Your task to perform on an android device: Show the shopping cart on costco. Add razer naga to the cart on costco Image 0: 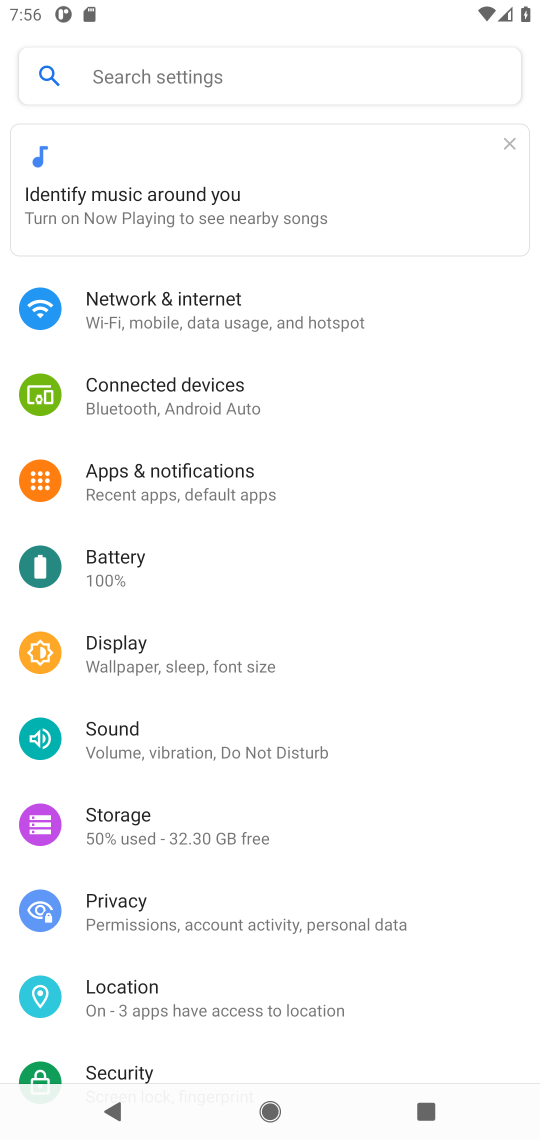
Step 0: press home button
Your task to perform on an android device: Show the shopping cart on costco. Add razer naga to the cart on costco Image 1: 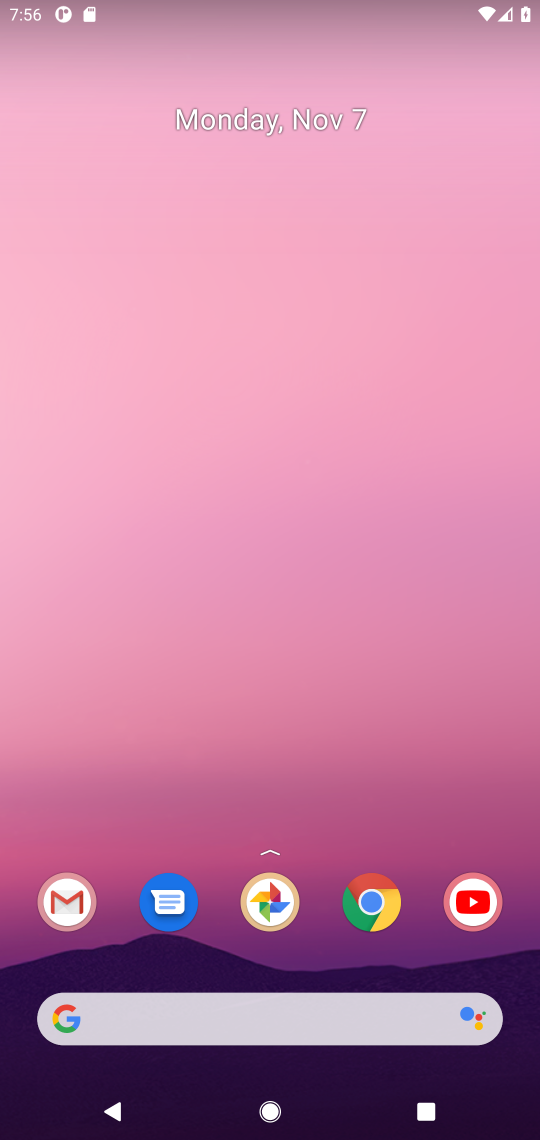
Step 1: click (370, 911)
Your task to perform on an android device: Show the shopping cart on costco. Add razer naga to the cart on costco Image 2: 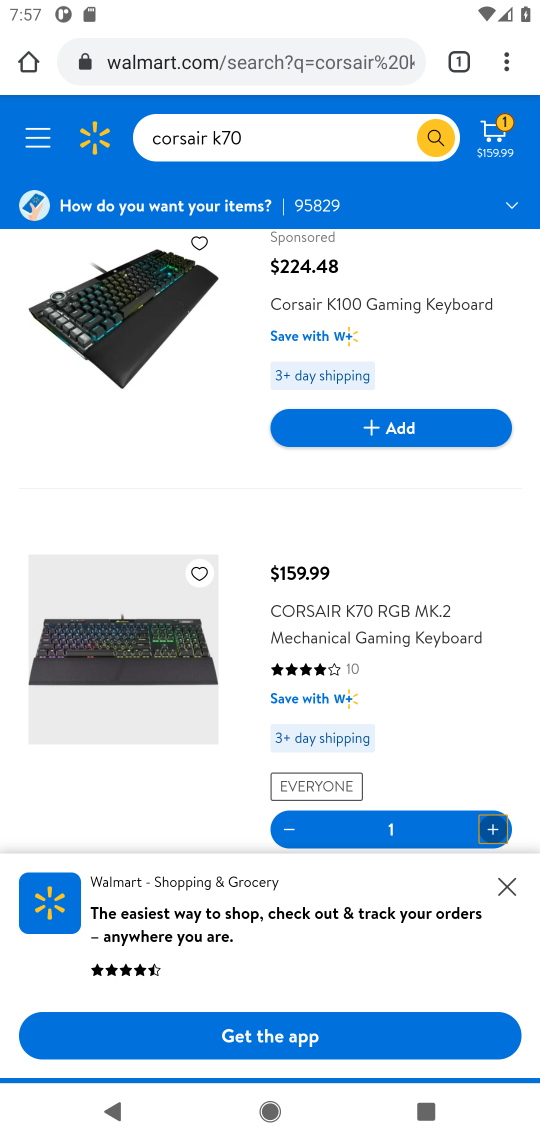
Step 2: click (493, 133)
Your task to perform on an android device: Show the shopping cart on costco. Add razer naga to the cart on costco Image 3: 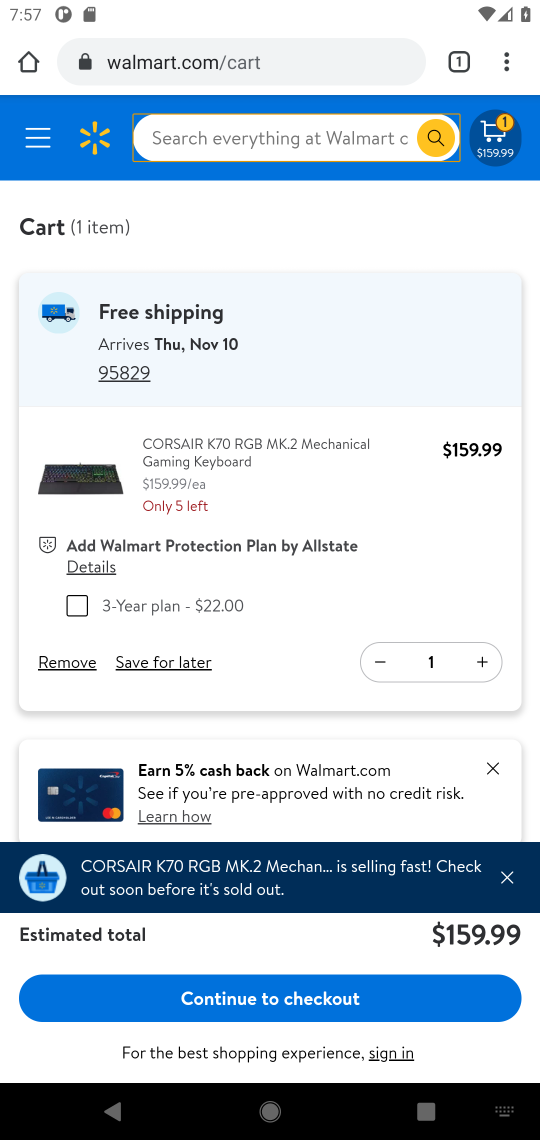
Step 3: click (232, 154)
Your task to perform on an android device: Show the shopping cart on costco. Add razer naga to the cart on costco Image 4: 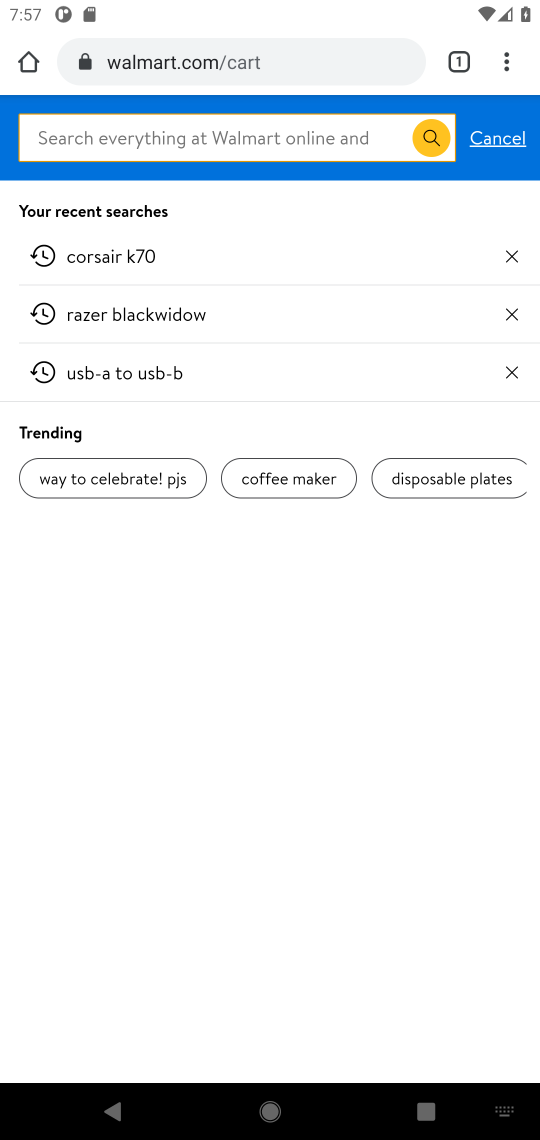
Step 4: type "razer naga"
Your task to perform on an android device: Show the shopping cart on costco. Add razer naga to the cart on costco Image 5: 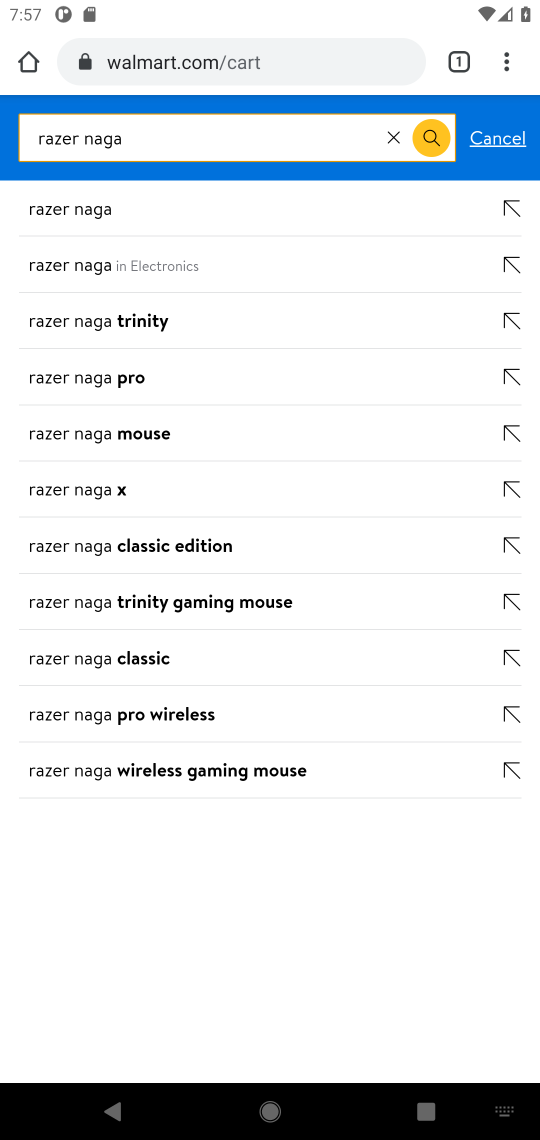
Step 5: click (63, 218)
Your task to perform on an android device: Show the shopping cart on costco. Add razer naga to the cart on costco Image 6: 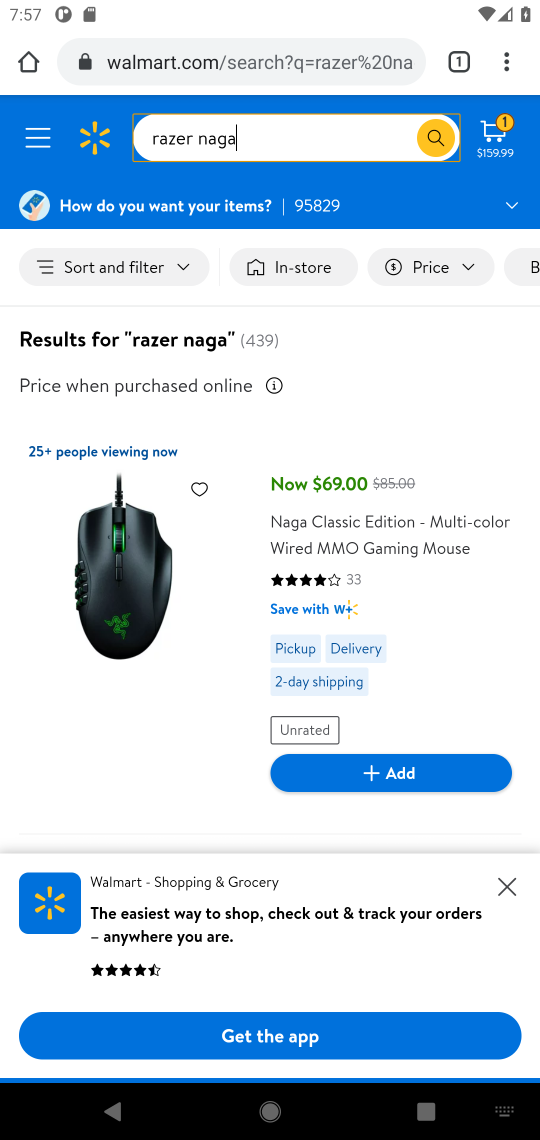
Step 6: drag from (200, 662) to (189, 258)
Your task to perform on an android device: Show the shopping cart on costco. Add razer naga to the cart on costco Image 7: 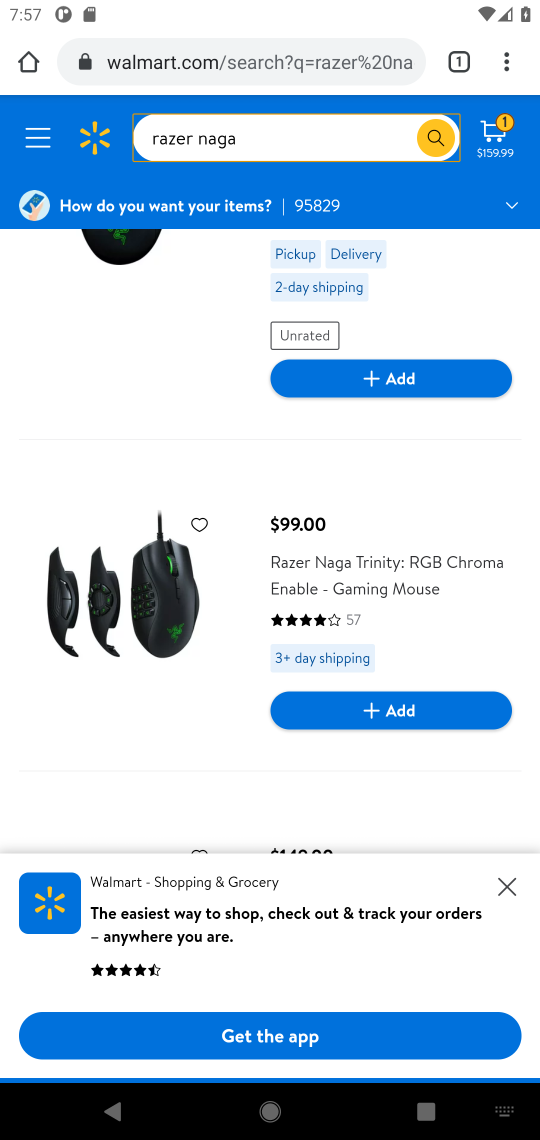
Step 7: click (383, 712)
Your task to perform on an android device: Show the shopping cart on costco. Add razer naga to the cart on costco Image 8: 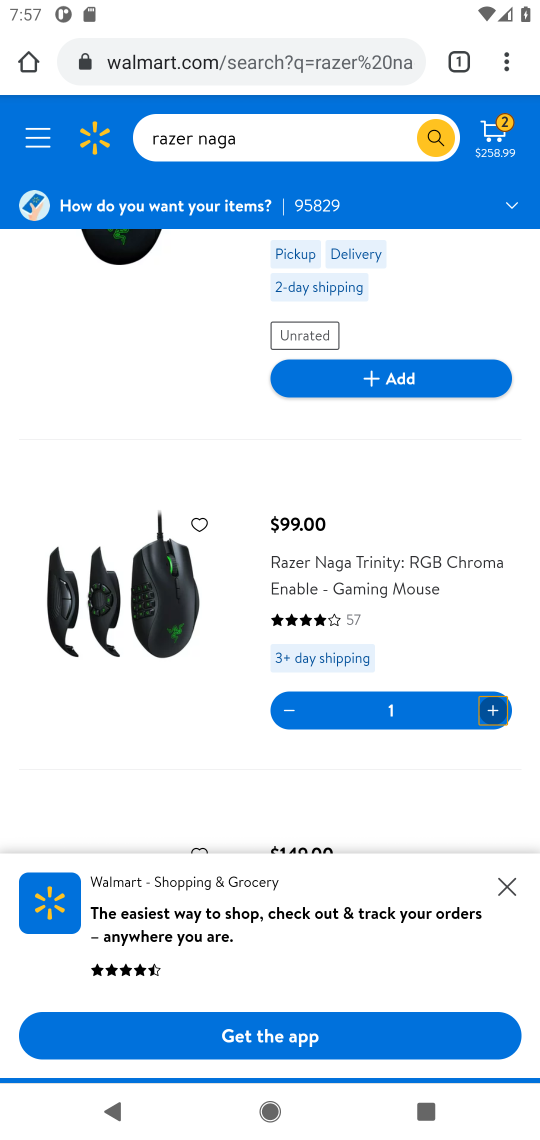
Step 8: task complete